Your task to perform on an android device: Go to network settings Image 0: 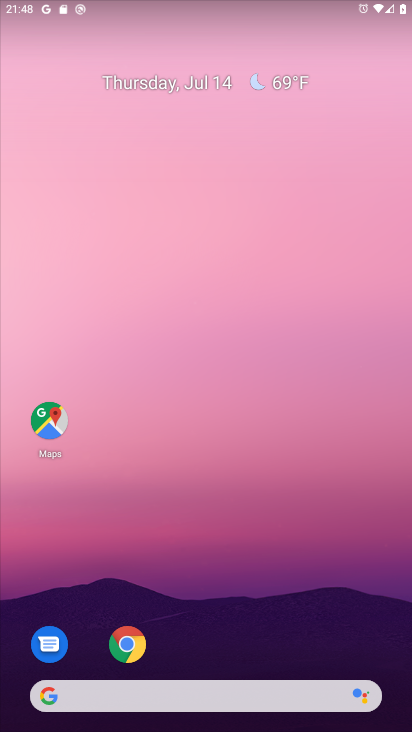
Step 0: drag from (226, 9) to (244, 563)
Your task to perform on an android device: Go to network settings Image 1: 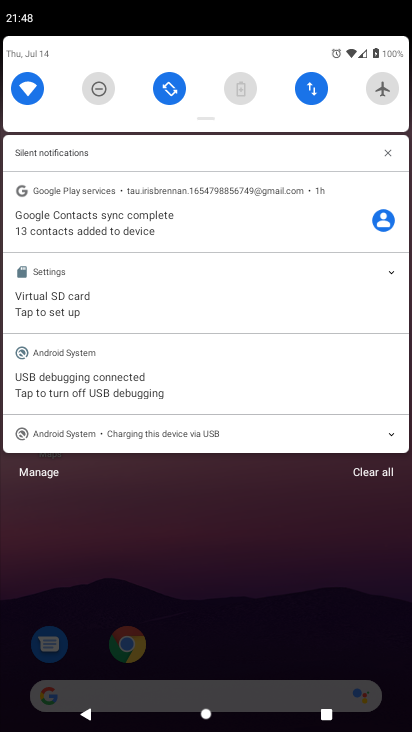
Step 1: click (307, 90)
Your task to perform on an android device: Go to network settings Image 2: 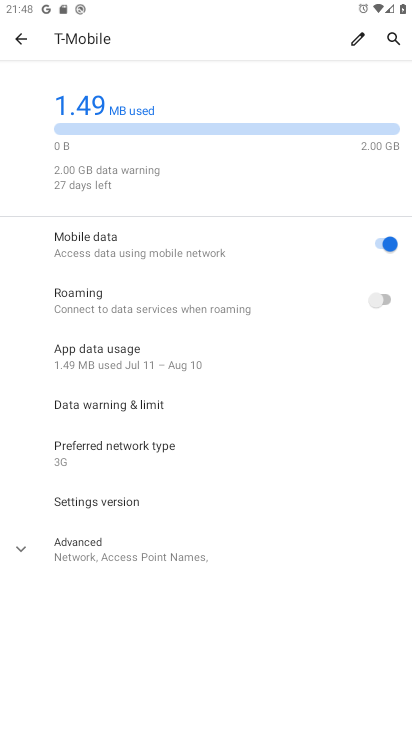
Step 2: task complete